Your task to perform on an android device: change the clock display to digital Image 0: 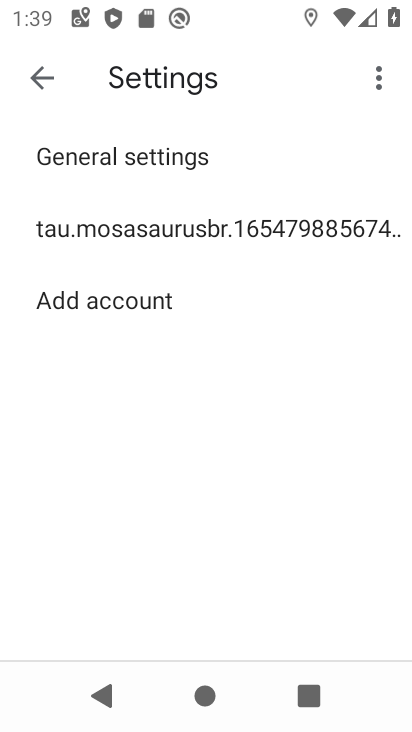
Step 0: press back button
Your task to perform on an android device: change the clock display to digital Image 1: 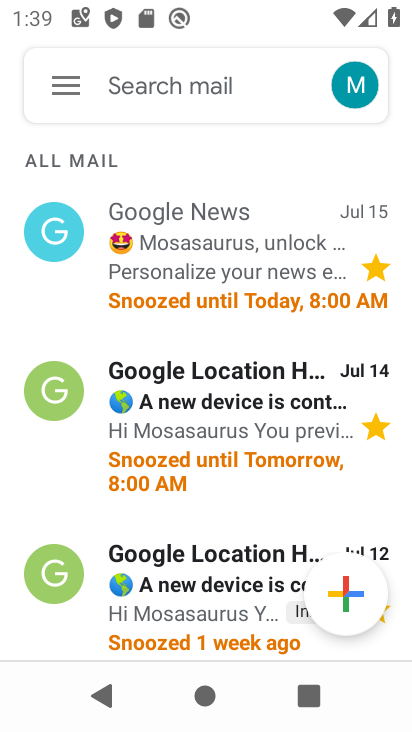
Step 1: press back button
Your task to perform on an android device: change the clock display to digital Image 2: 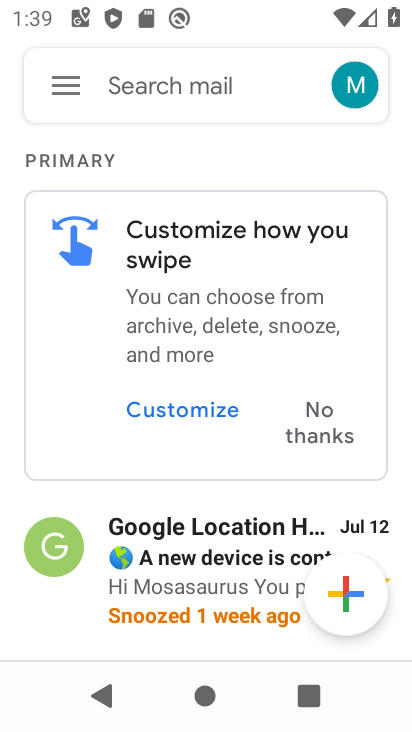
Step 2: press back button
Your task to perform on an android device: change the clock display to digital Image 3: 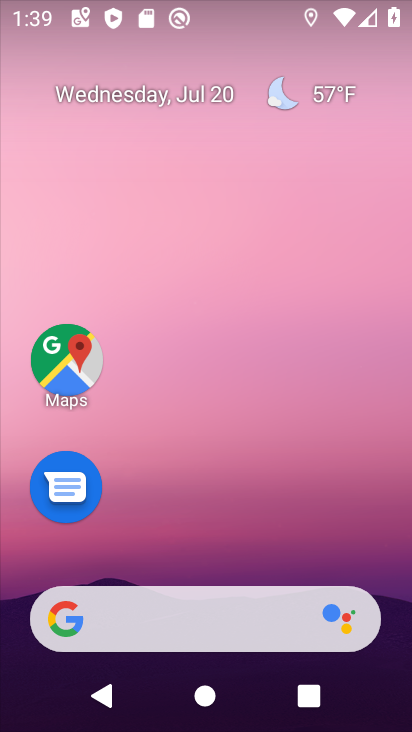
Step 3: drag from (202, 558) to (203, 8)
Your task to perform on an android device: change the clock display to digital Image 4: 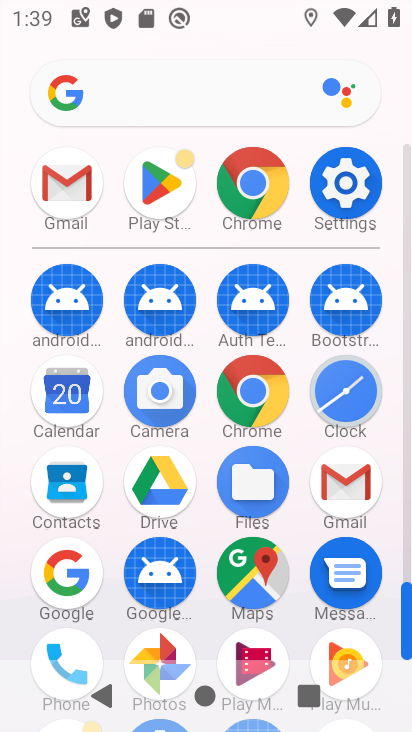
Step 4: click (341, 390)
Your task to perform on an android device: change the clock display to digital Image 5: 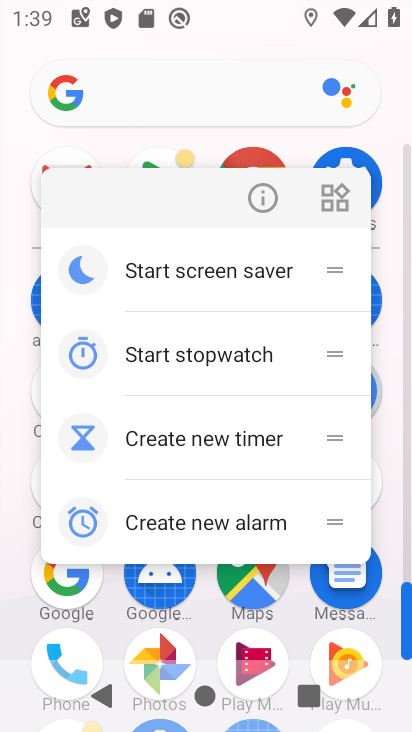
Step 5: click (377, 398)
Your task to perform on an android device: change the clock display to digital Image 6: 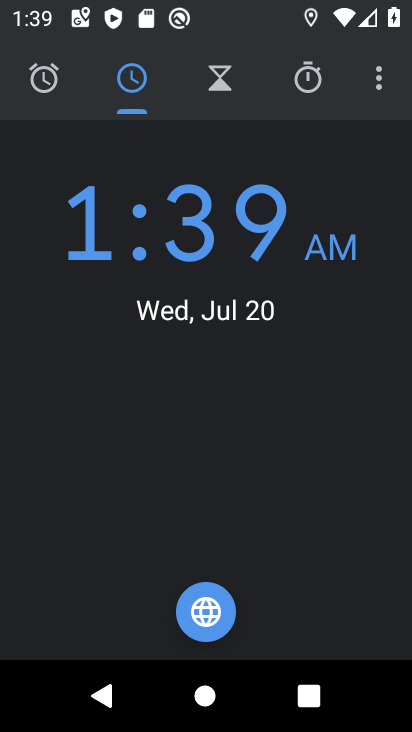
Step 6: click (370, 83)
Your task to perform on an android device: change the clock display to digital Image 7: 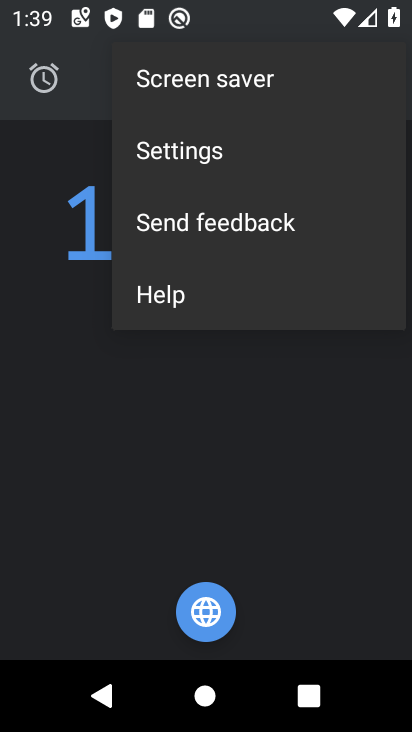
Step 7: click (192, 149)
Your task to perform on an android device: change the clock display to digital Image 8: 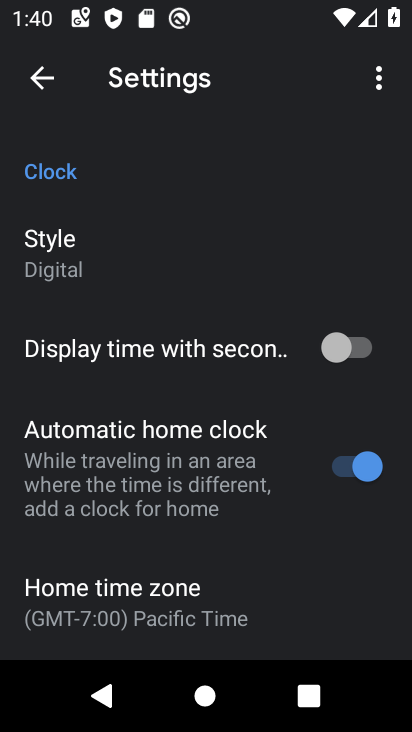
Step 8: task complete